Your task to perform on an android device: Search for logitech g903 on target, select the first entry, and add it to the cart. Image 0: 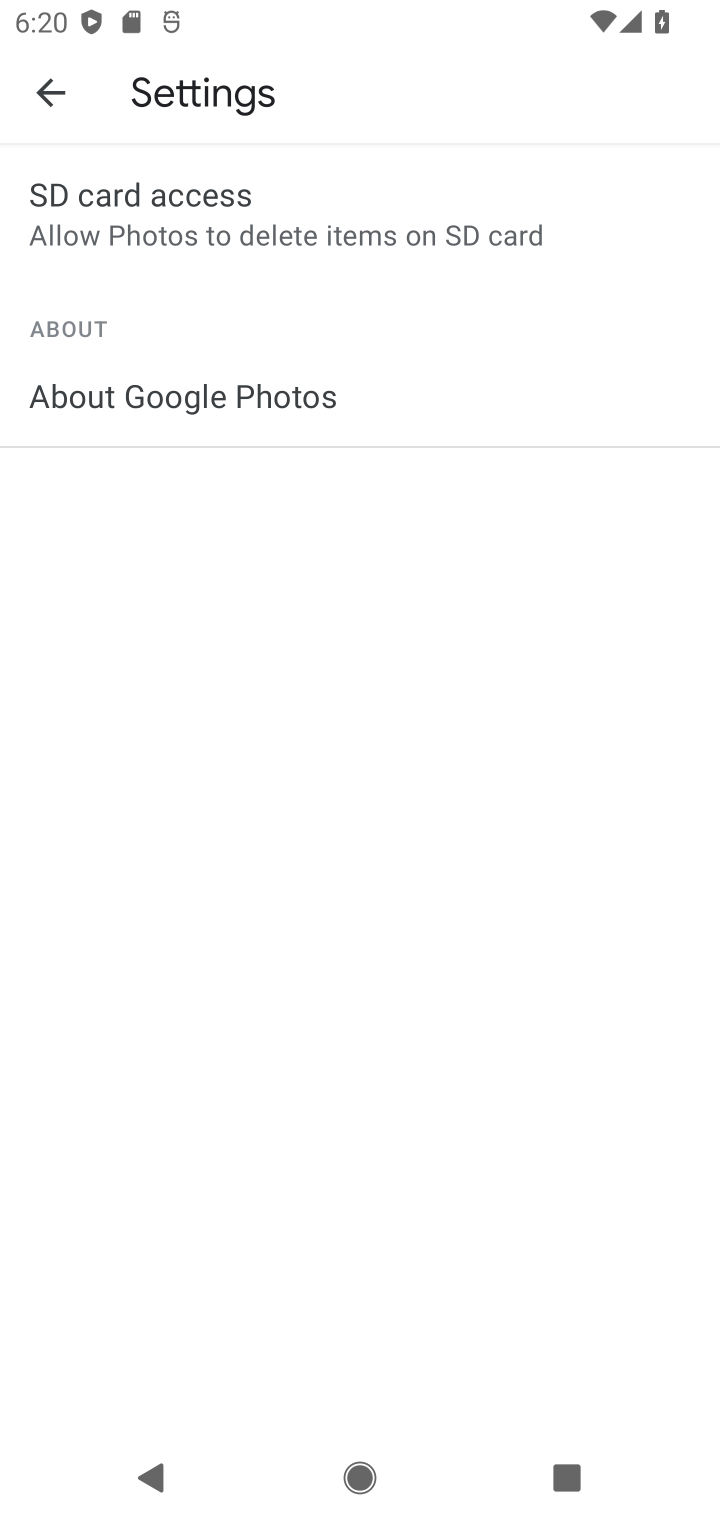
Step 0: press home button
Your task to perform on an android device: Search for logitech g903 on target, select the first entry, and add it to the cart. Image 1: 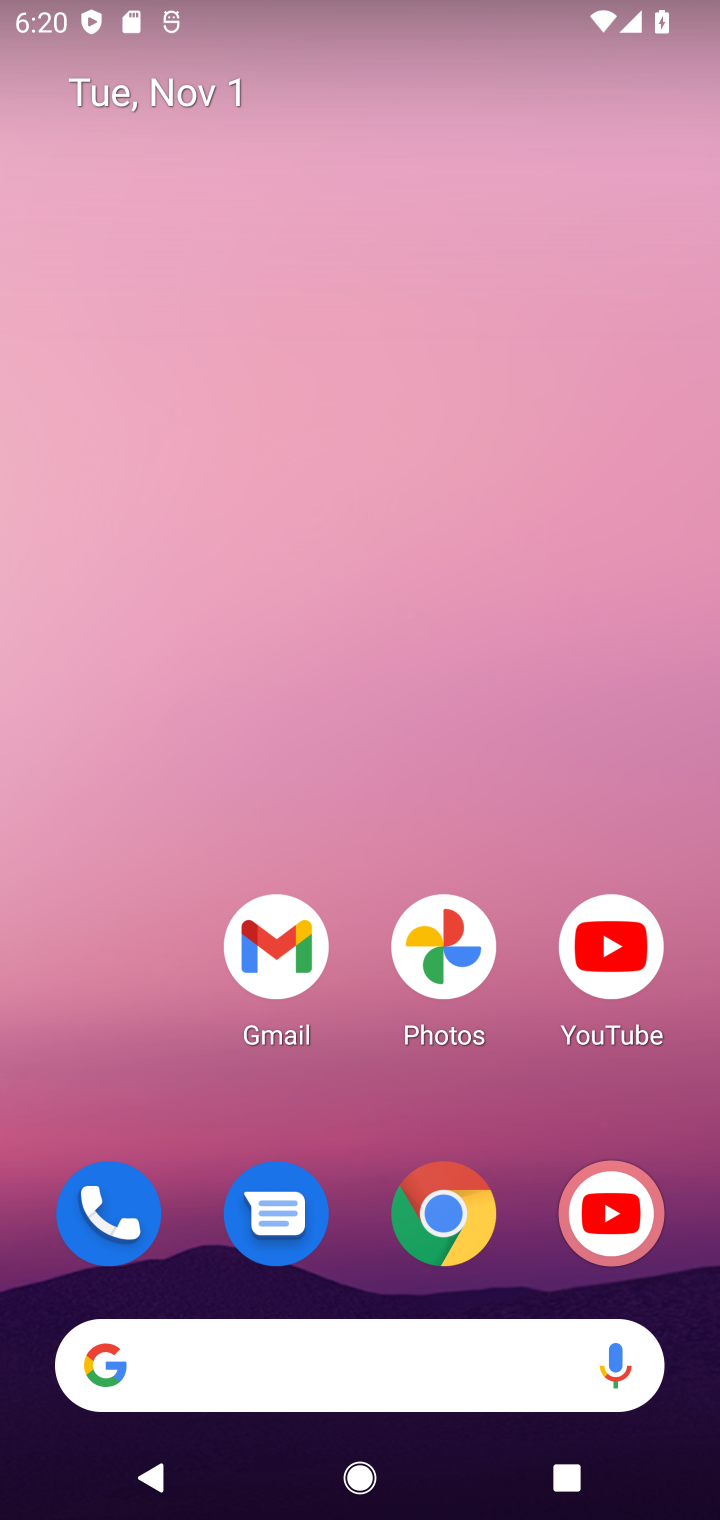
Step 1: click (441, 1225)
Your task to perform on an android device: Search for logitech g903 on target, select the first entry, and add it to the cart. Image 2: 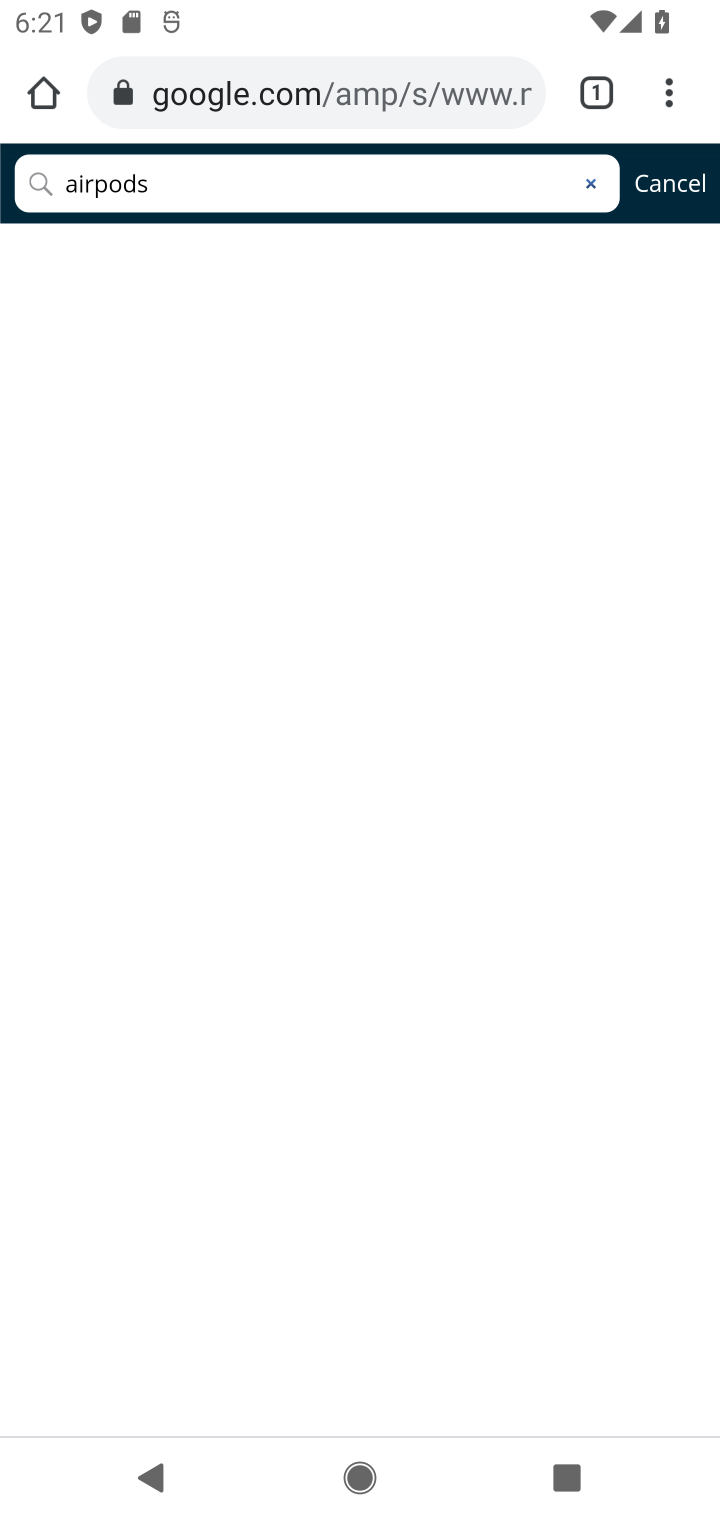
Step 2: click (329, 96)
Your task to perform on an android device: Search for logitech g903 on target, select the first entry, and add it to the cart. Image 3: 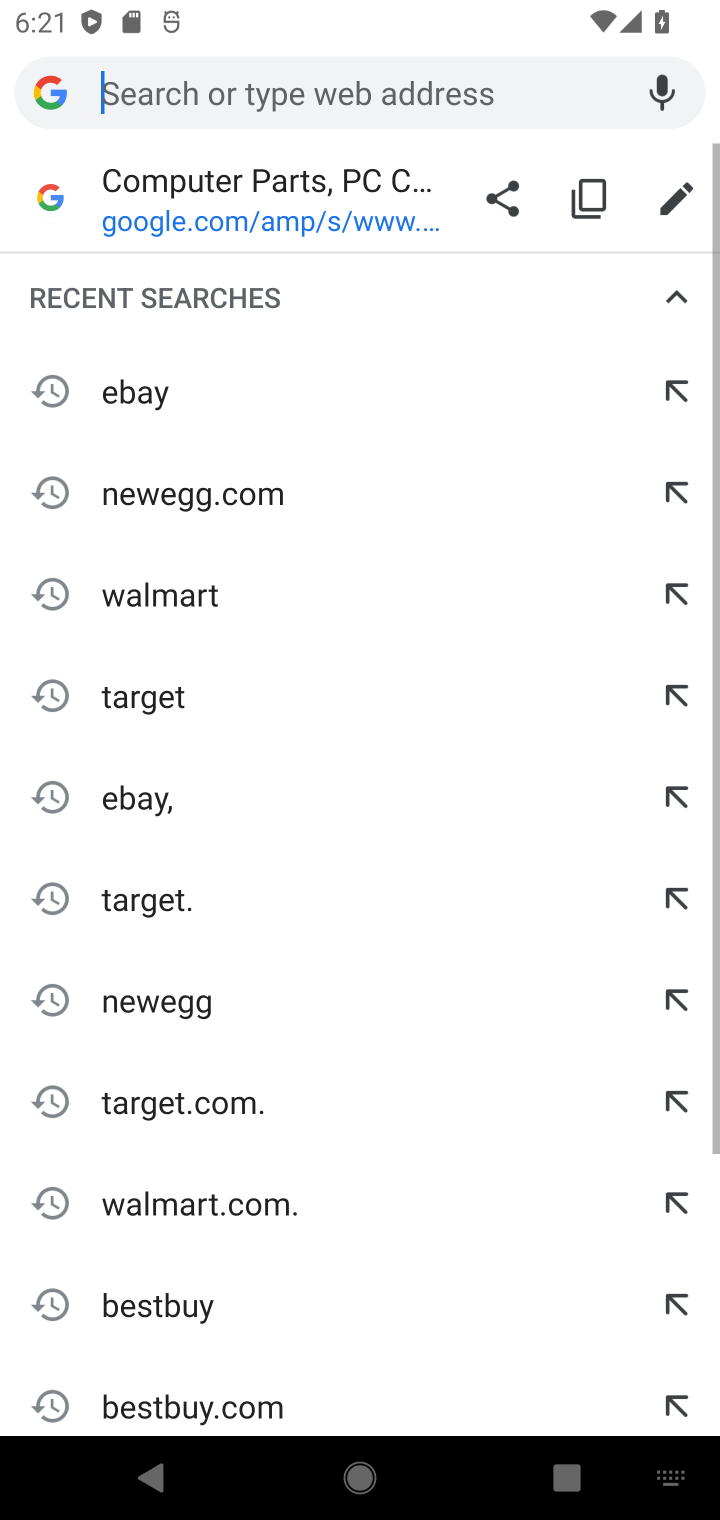
Step 3: type "target"
Your task to perform on an android device: Search for logitech g903 on target, select the first entry, and add it to the cart. Image 4: 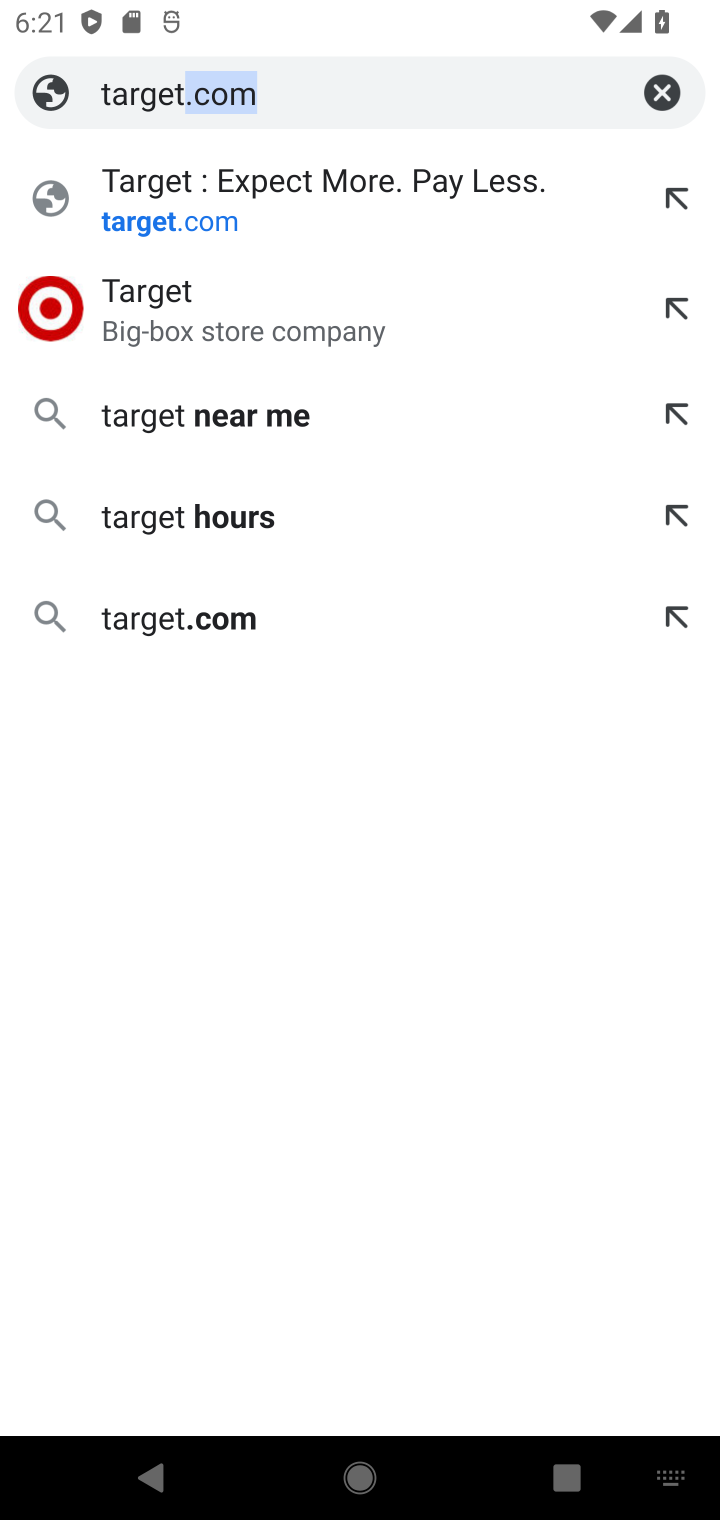
Step 4: click (352, 195)
Your task to perform on an android device: Search for logitech g903 on target, select the first entry, and add it to the cart. Image 5: 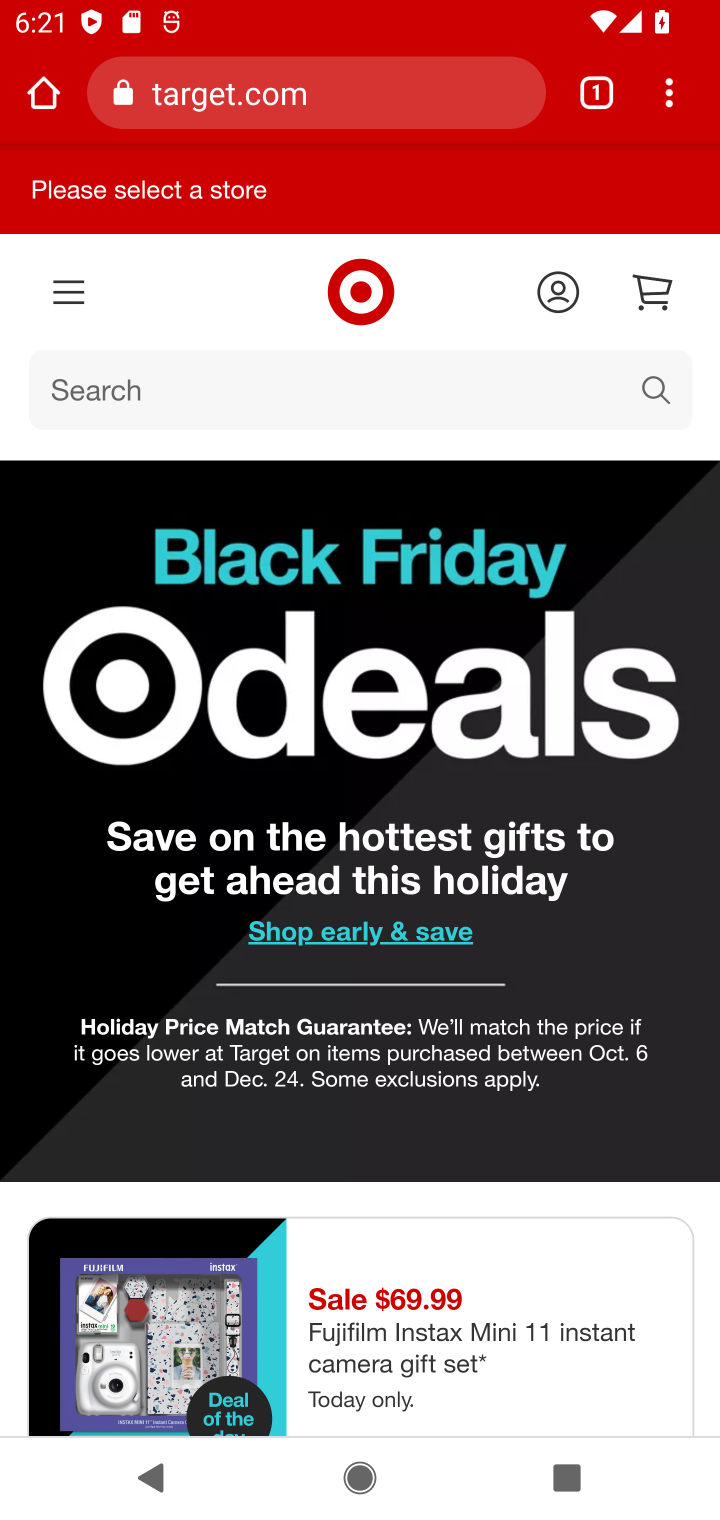
Step 5: click (283, 403)
Your task to perform on an android device: Search for logitech g903 on target, select the first entry, and add it to the cart. Image 6: 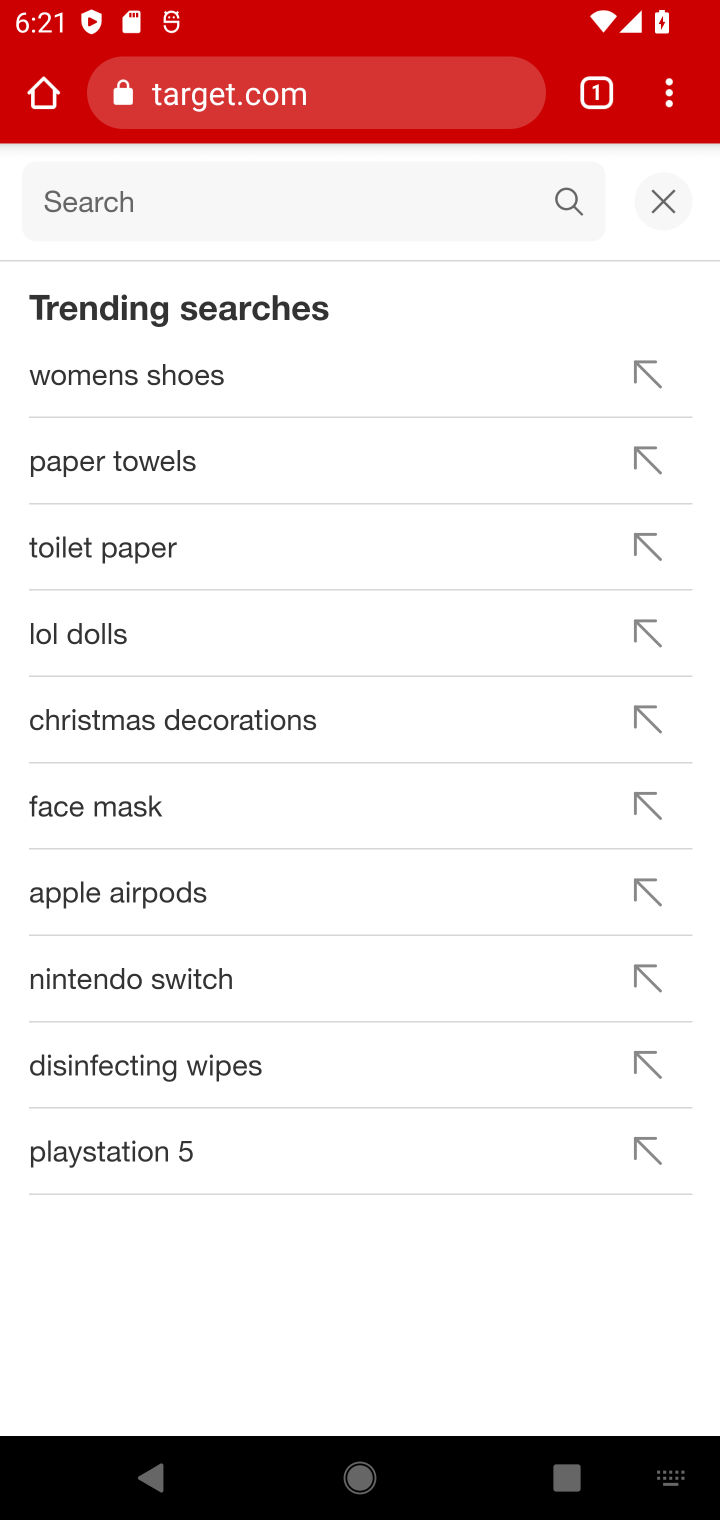
Step 6: click (316, 376)
Your task to perform on an android device: Search for logitech g903 on target, select the first entry, and add it to the cart. Image 7: 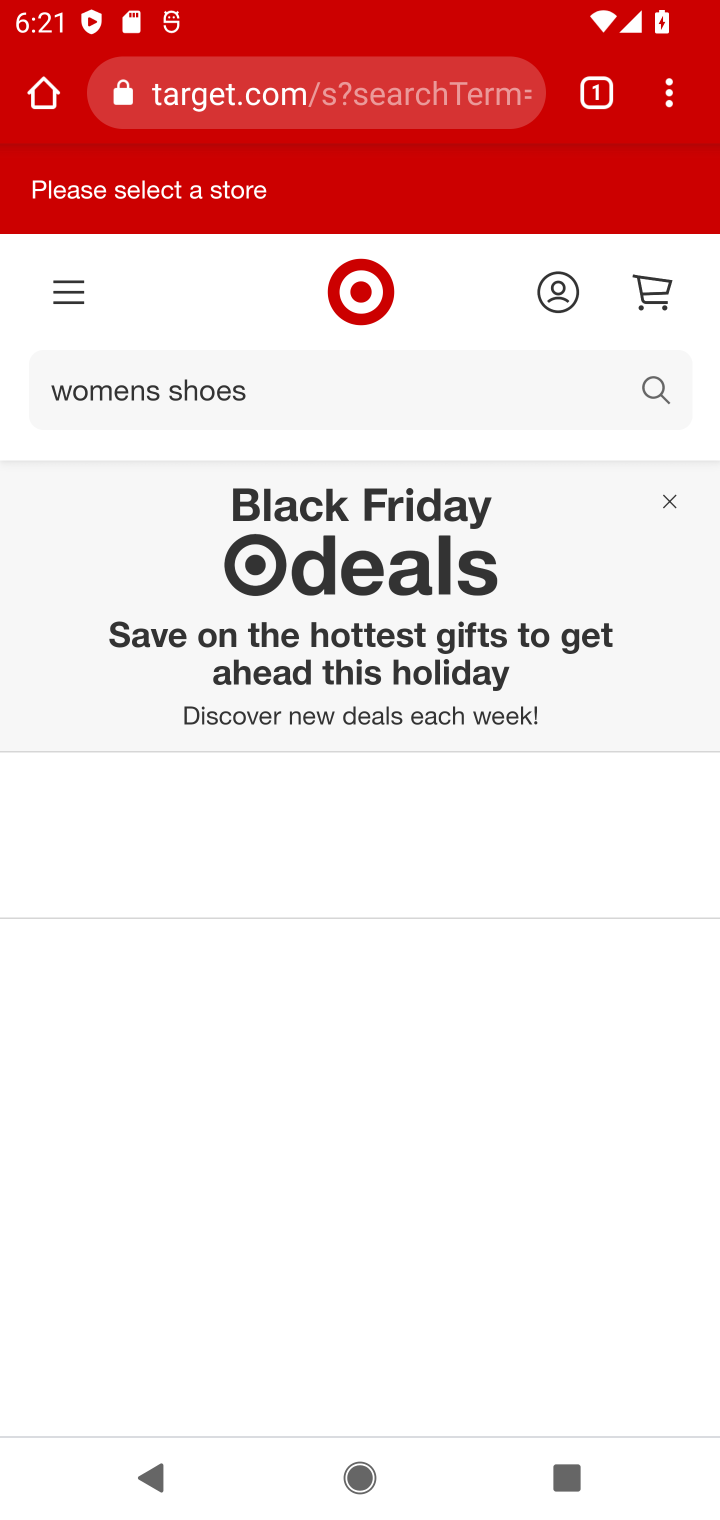
Step 7: click (251, 193)
Your task to perform on an android device: Search for logitech g903 on target, select the first entry, and add it to the cart. Image 8: 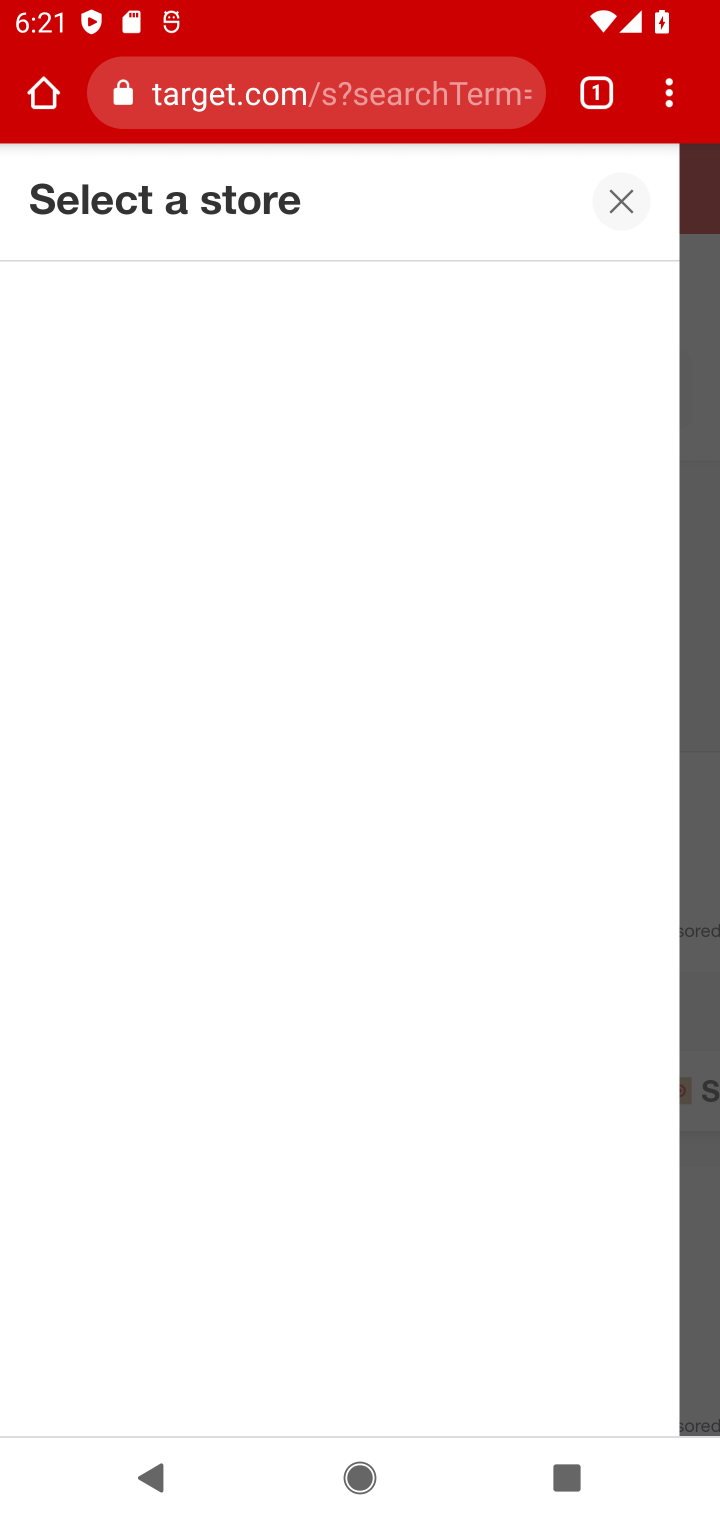
Step 8: click (238, 398)
Your task to perform on an android device: Search for logitech g903 on target, select the first entry, and add it to the cart. Image 9: 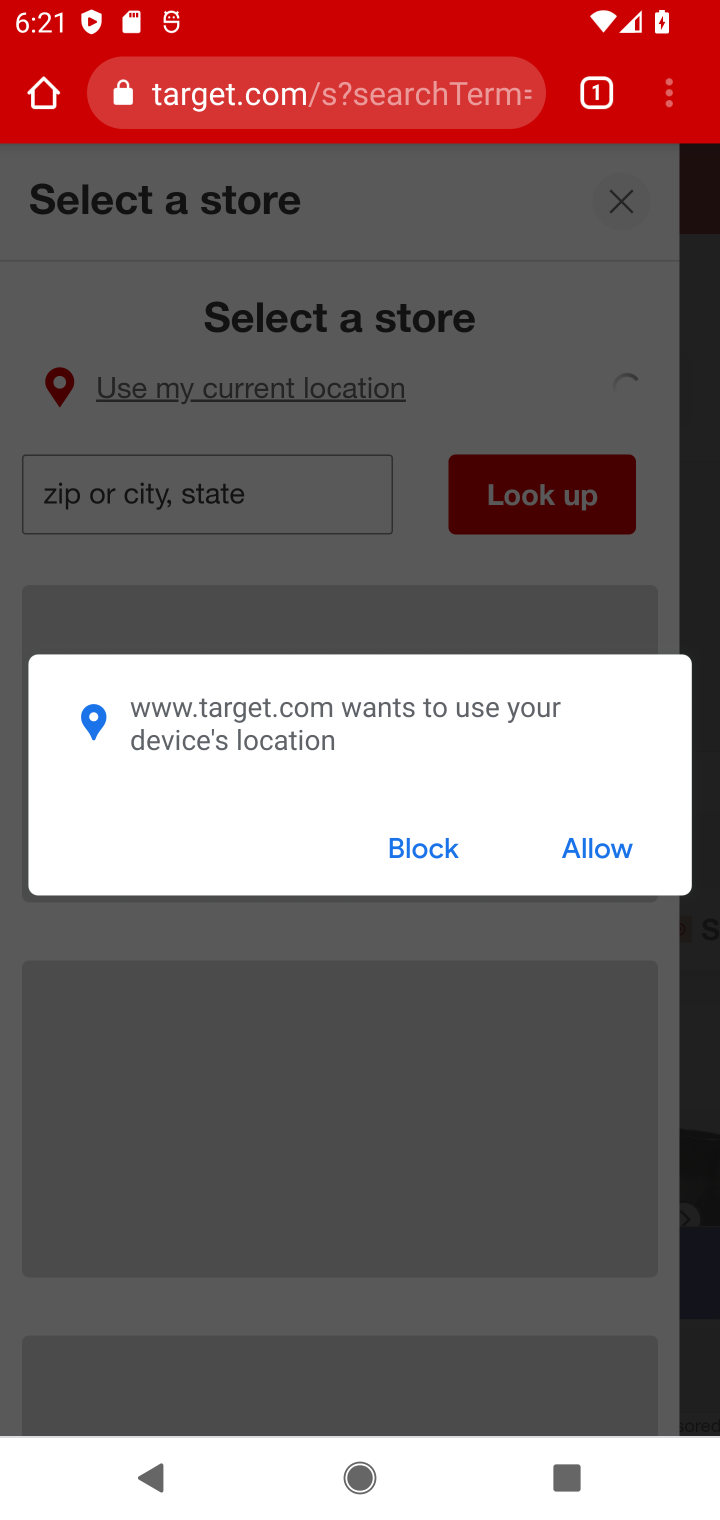
Step 9: click (621, 846)
Your task to perform on an android device: Search for logitech g903 on target, select the first entry, and add it to the cart. Image 10: 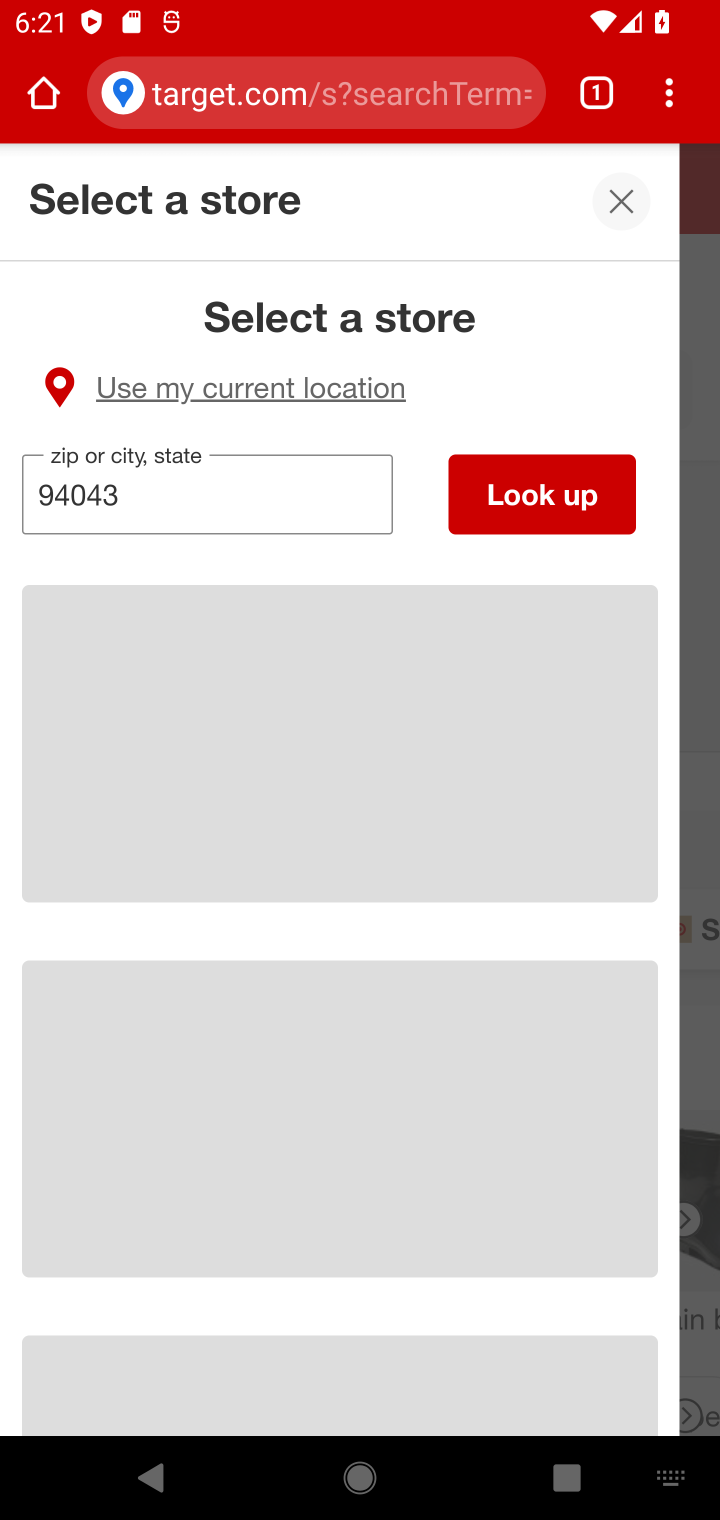
Step 10: click (612, 191)
Your task to perform on an android device: Search for logitech g903 on target, select the first entry, and add it to the cart. Image 11: 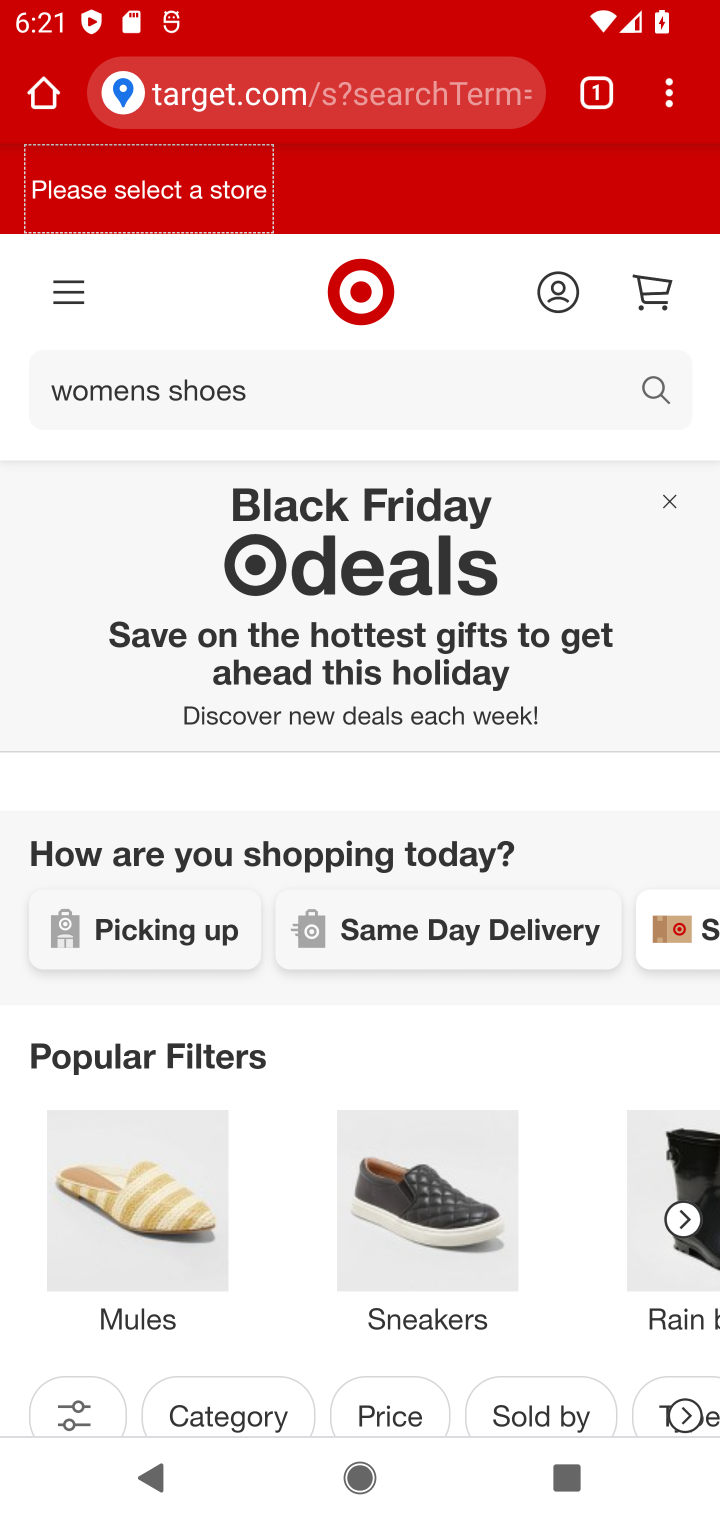
Step 11: click (248, 386)
Your task to perform on an android device: Search for logitech g903 on target, select the first entry, and add it to the cart. Image 12: 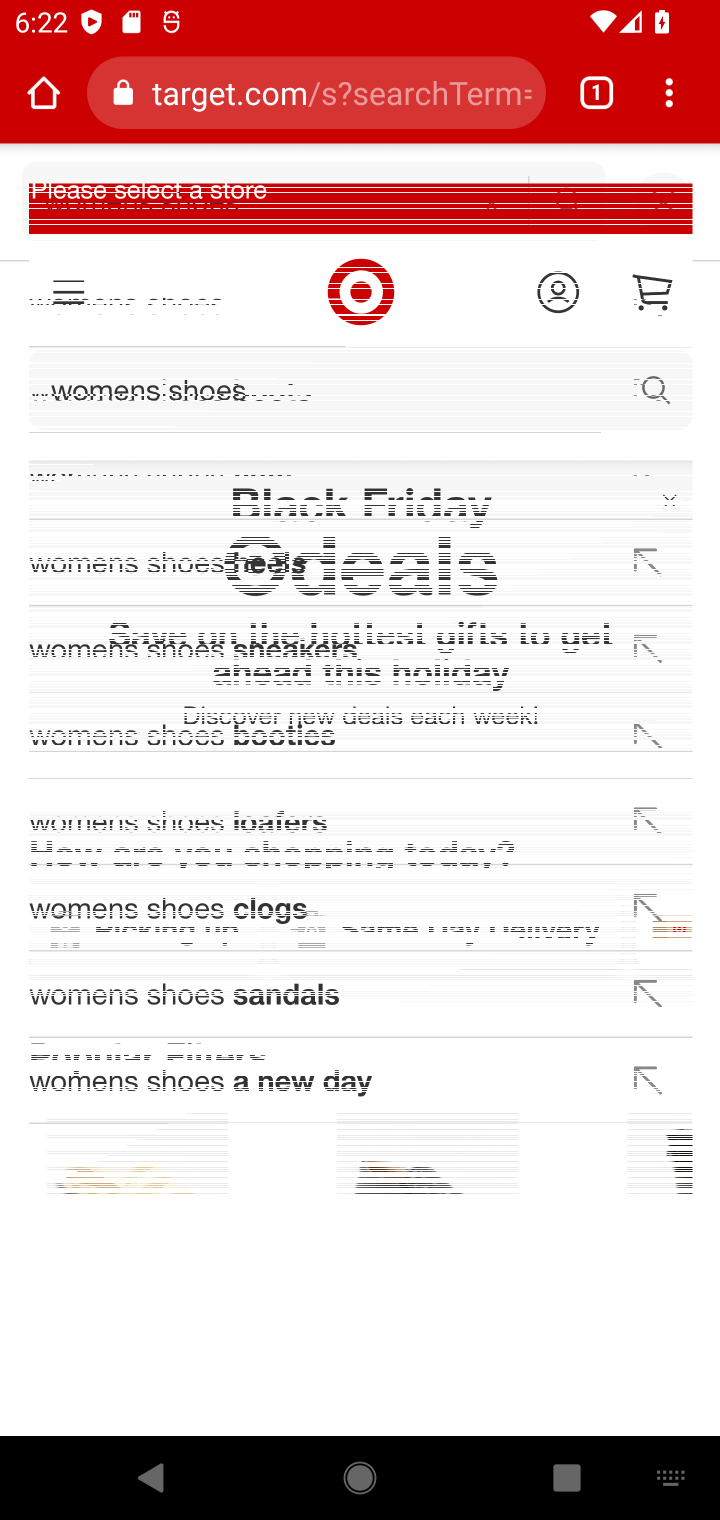
Step 12: click (482, 204)
Your task to perform on an android device: Search for logitech g903 on target, select the first entry, and add it to the cart. Image 13: 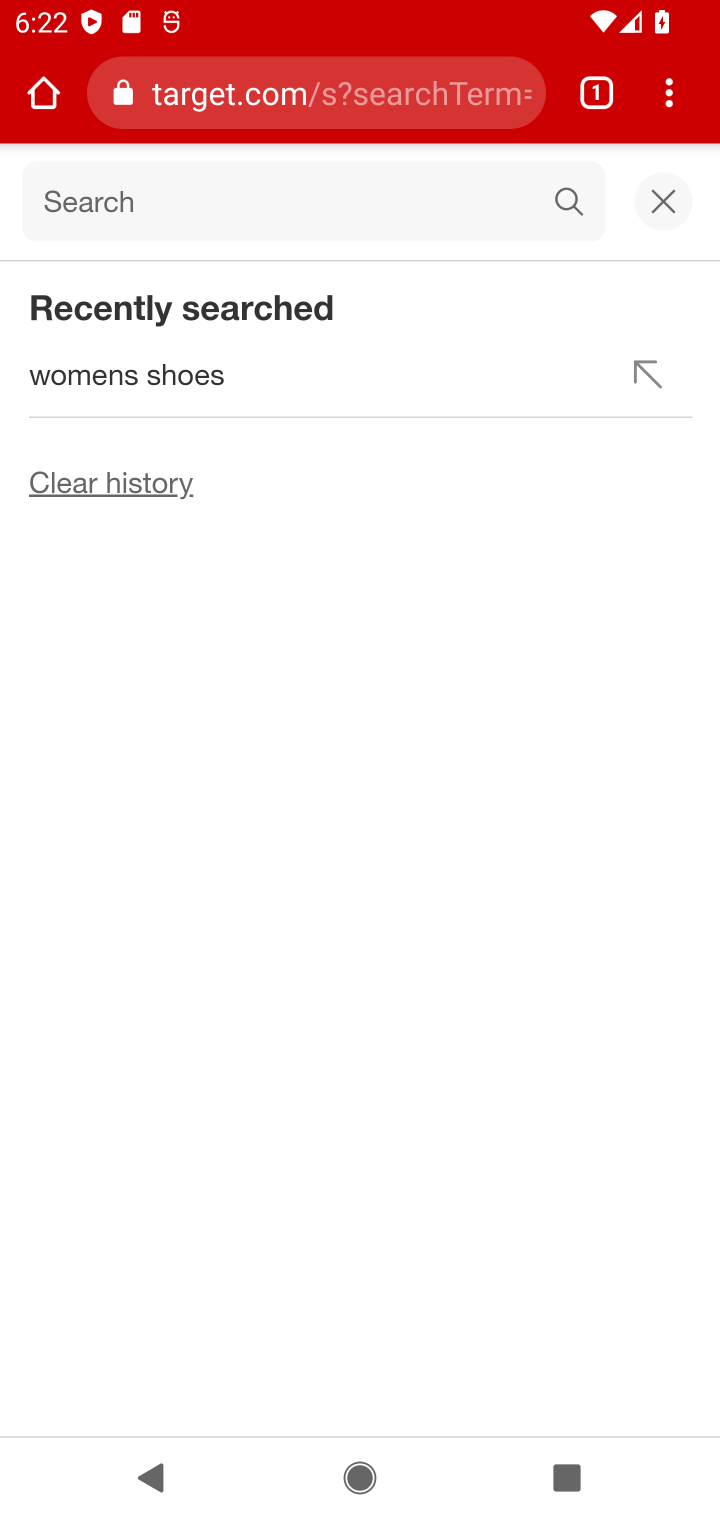
Step 13: click (373, 217)
Your task to perform on an android device: Search for logitech g903 on target, select the first entry, and add it to the cart. Image 14: 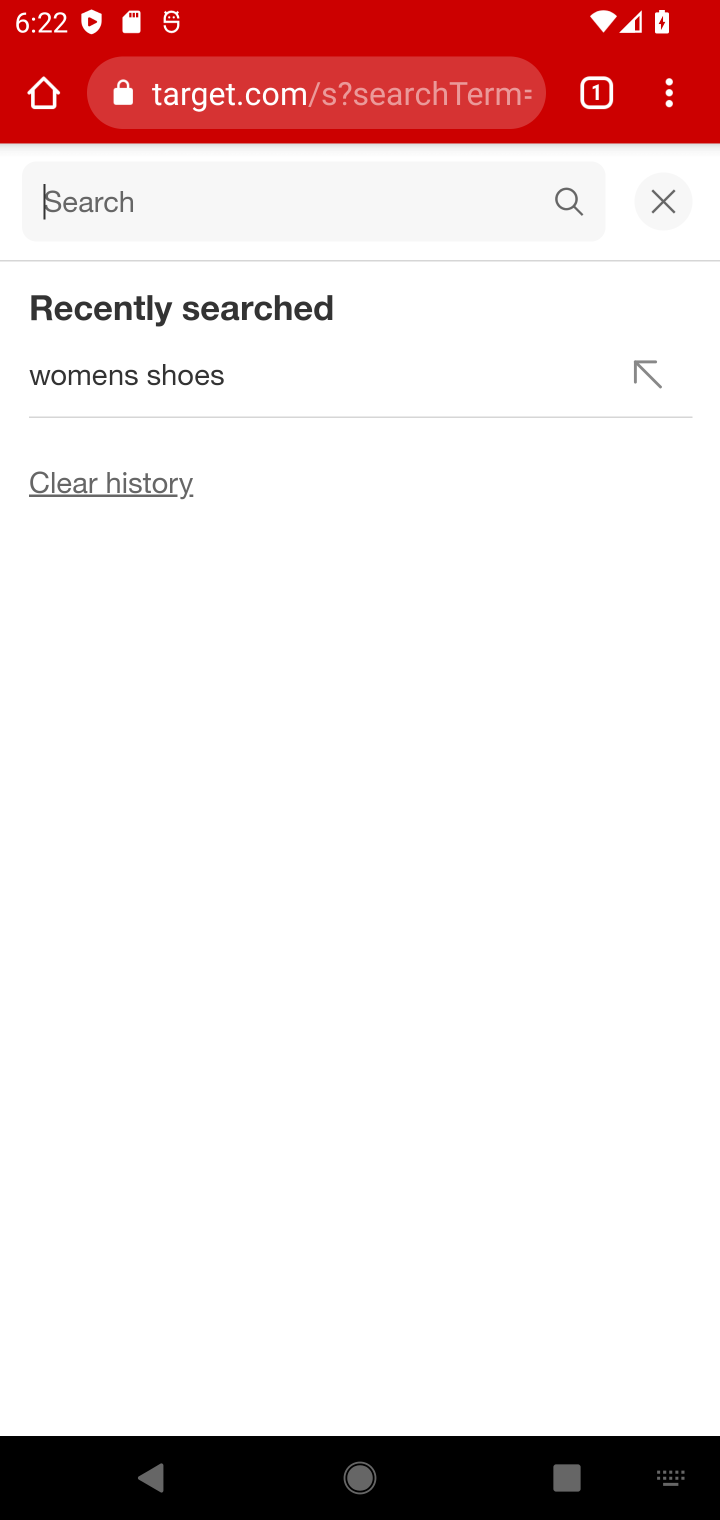
Step 14: type "logitech g903"
Your task to perform on an android device: Search for logitech g903 on target, select the first entry, and add it to the cart. Image 15: 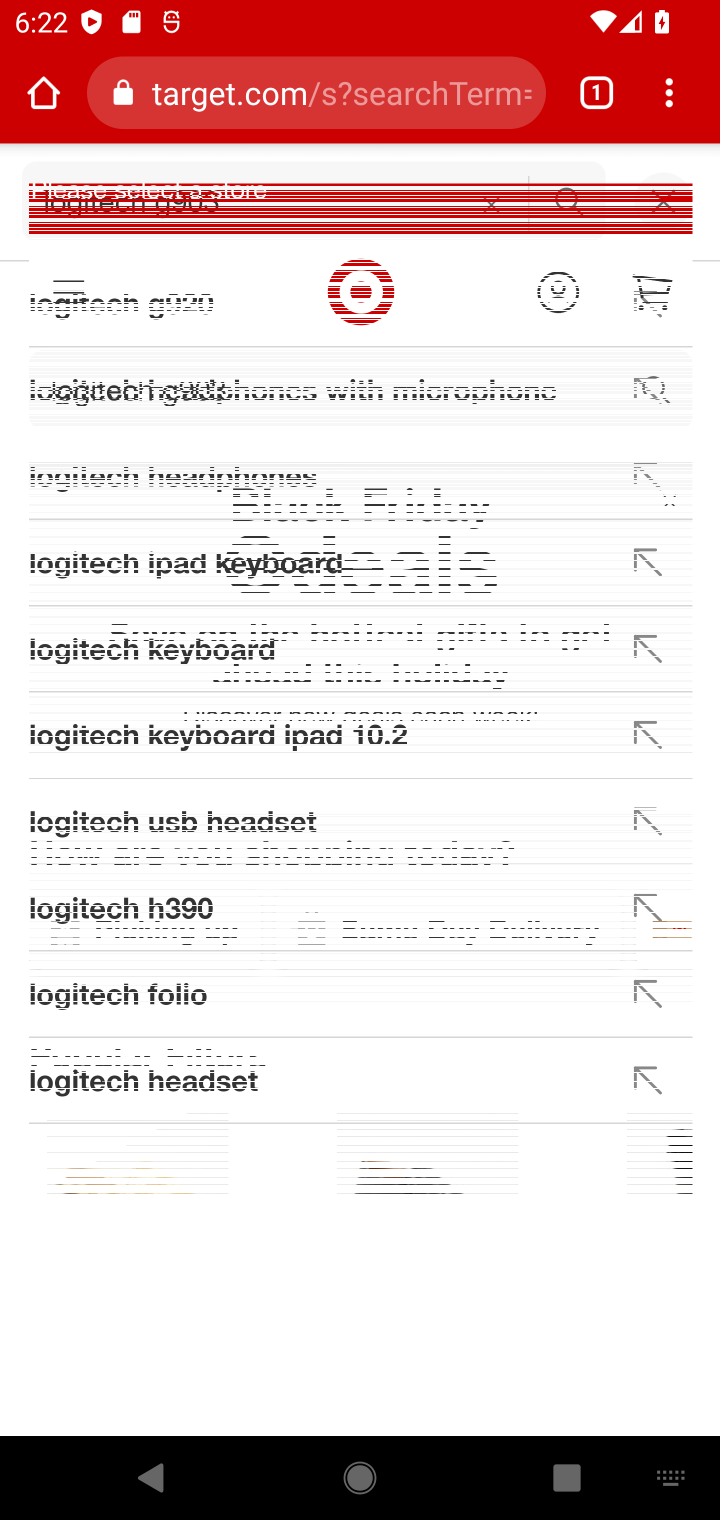
Step 15: click (565, 202)
Your task to perform on an android device: Search for logitech g903 on target, select the first entry, and add it to the cart. Image 16: 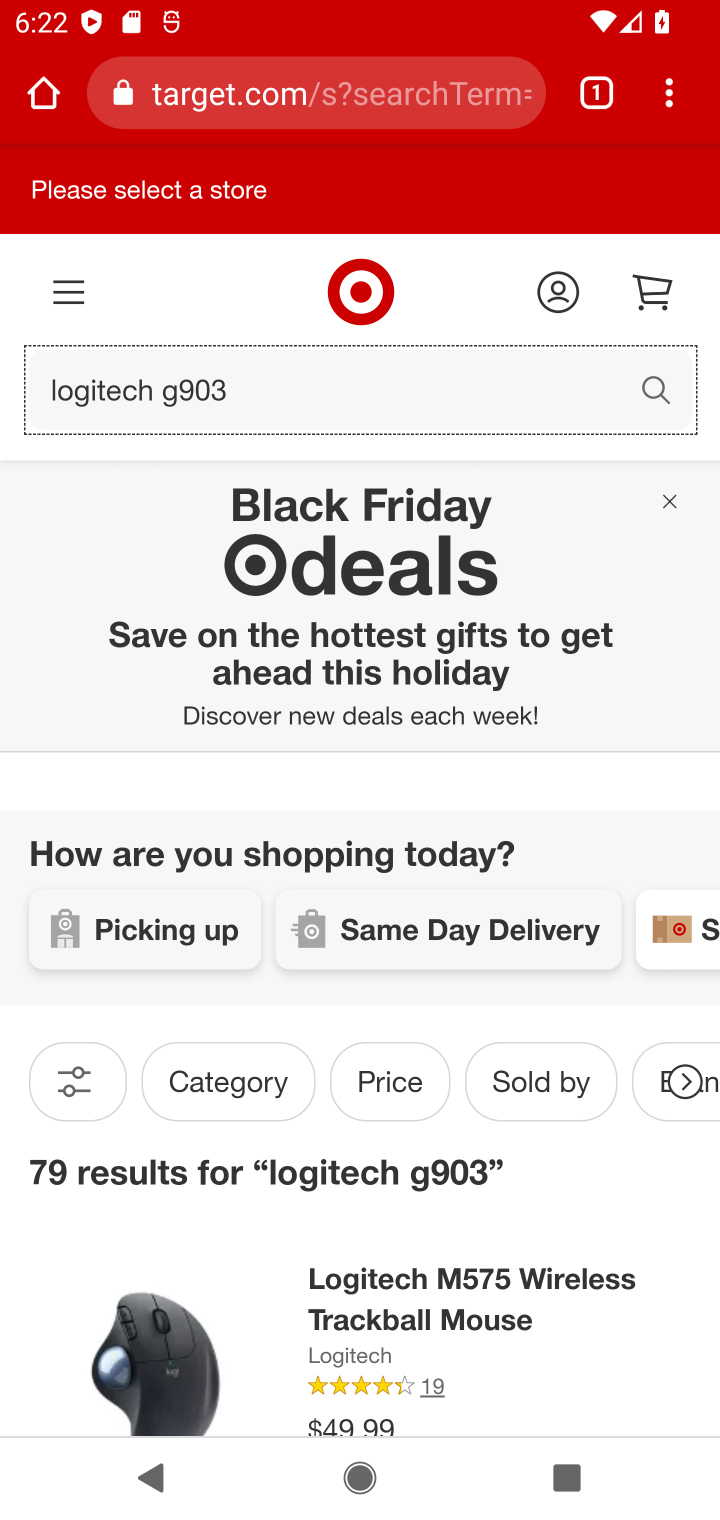
Step 16: task complete